Your task to perform on an android device: check out phone information Image 0: 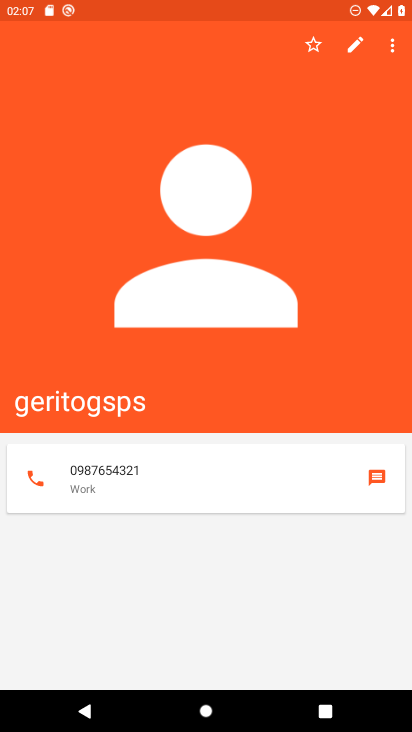
Step 0: press home button
Your task to perform on an android device: check out phone information Image 1: 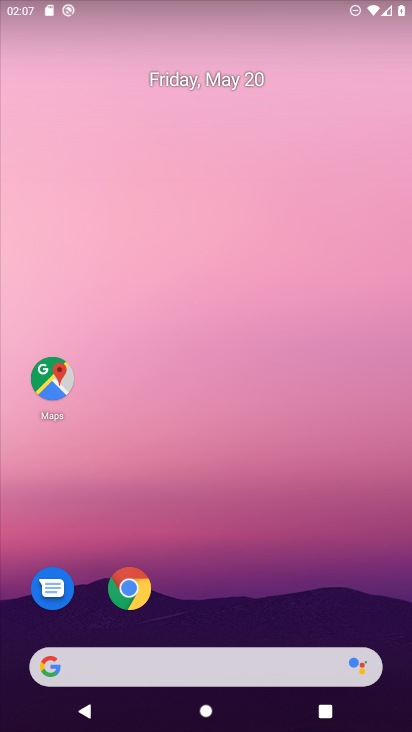
Step 1: drag from (392, 631) to (304, 115)
Your task to perform on an android device: check out phone information Image 2: 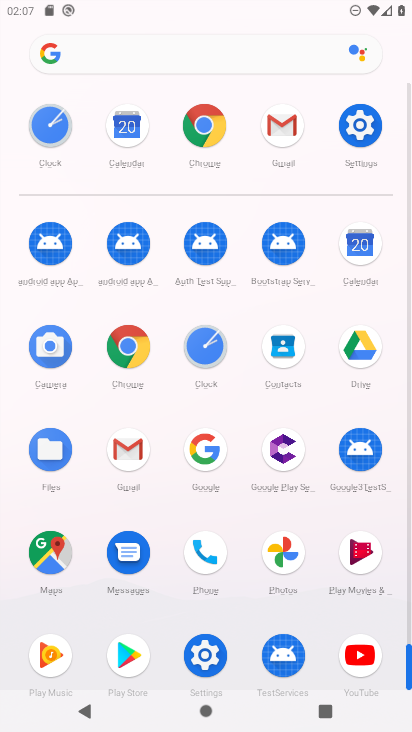
Step 2: click (205, 652)
Your task to perform on an android device: check out phone information Image 3: 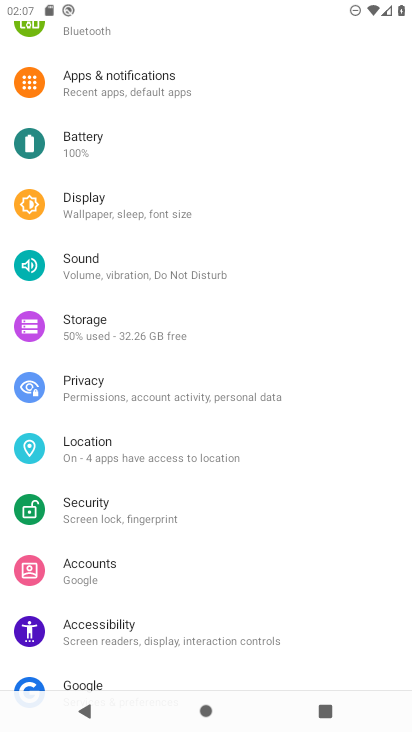
Step 3: drag from (295, 664) to (291, 239)
Your task to perform on an android device: check out phone information Image 4: 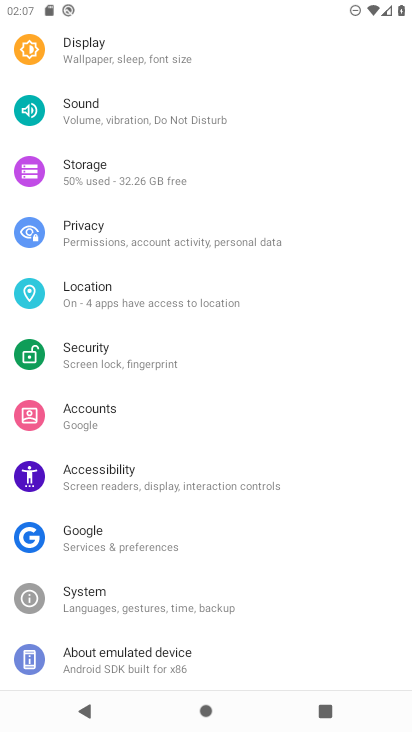
Step 4: click (113, 657)
Your task to perform on an android device: check out phone information Image 5: 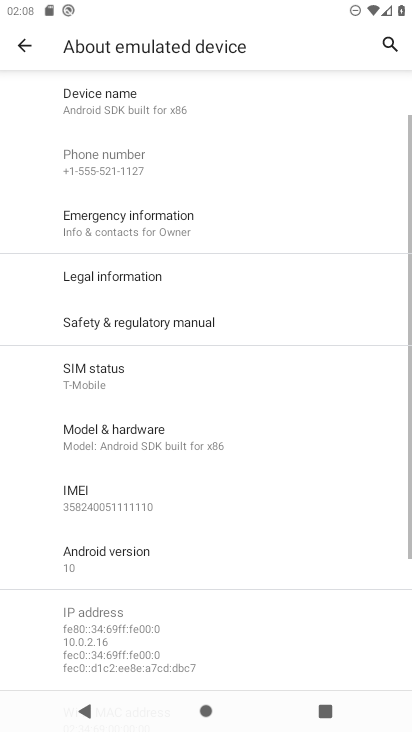
Step 5: task complete